Your task to perform on an android device: clear all cookies in the chrome app Image 0: 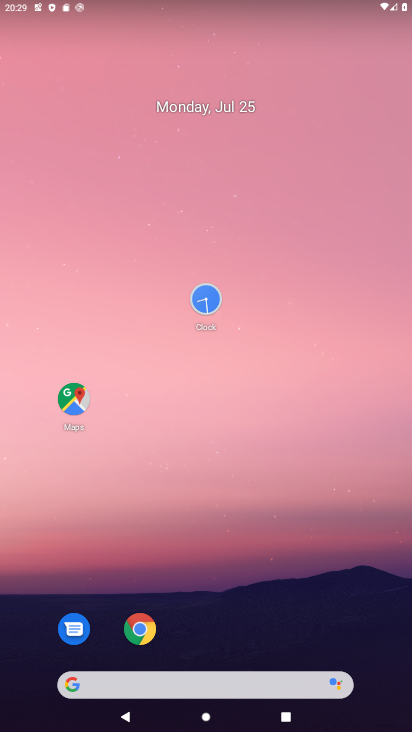
Step 0: click (143, 644)
Your task to perform on an android device: clear all cookies in the chrome app Image 1: 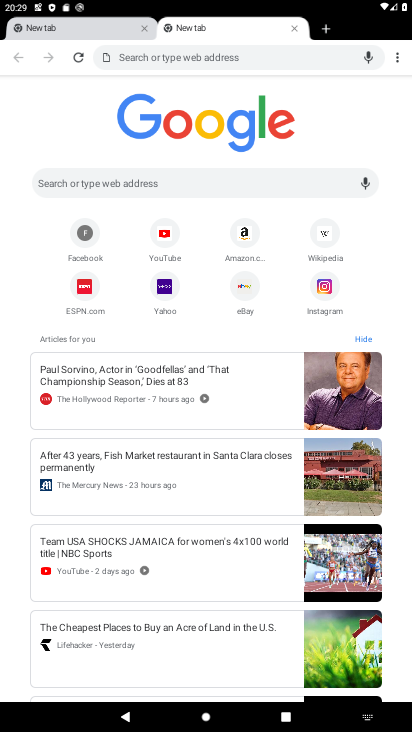
Step 1: click (400, 56)
Your task to perform on an android device: clear all cookies in the chrome app Image 2: 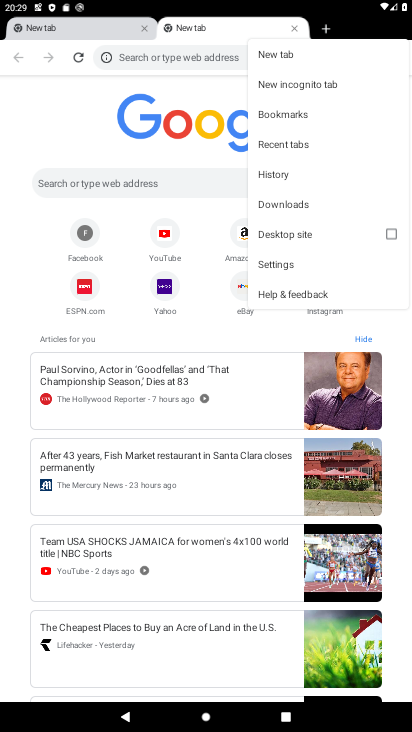
Step 2: click (279, 173)
Your task to perform on an android device: clear all cookies in the chrome app Image 3: 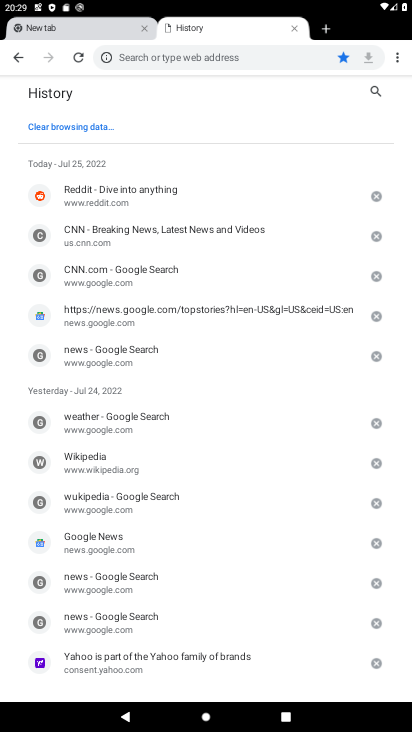
Step 3: click (83, 126)
Your task to perform on an android device: clear all cookies in the chrome app Image 4: 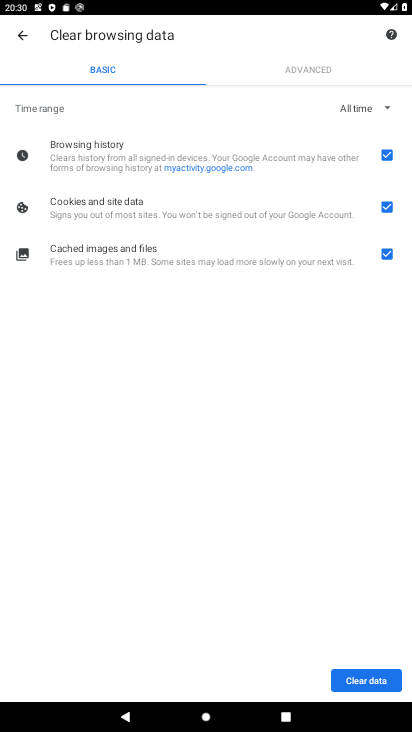
Step 4: click (388, 157)
Your task to perform on an android device: clear all cookies in the chrome app Image 5: 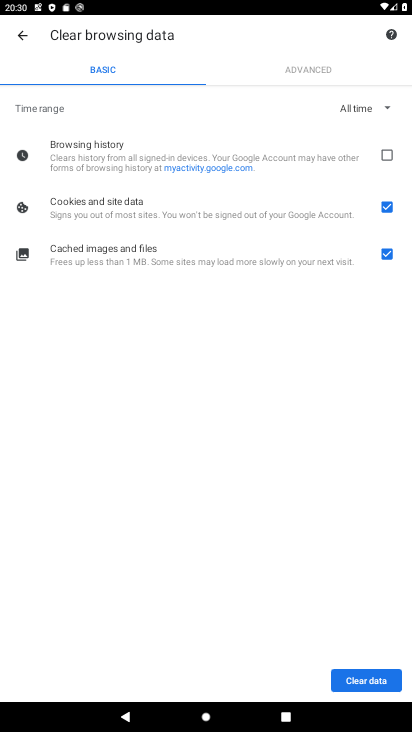
Step 5: click (385, 257)
Your task to perform on an android device: clear all cookies in the chrome app Image 6: 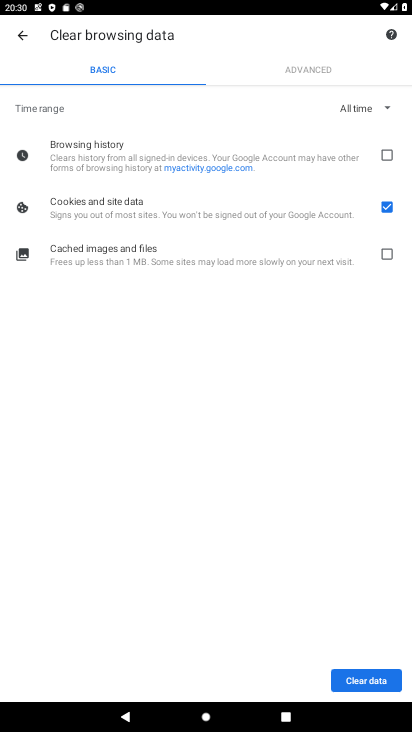
Step 6: click (365, 671)
Your task to perform on an android device: clear all cookies in the chrome app Image 7: 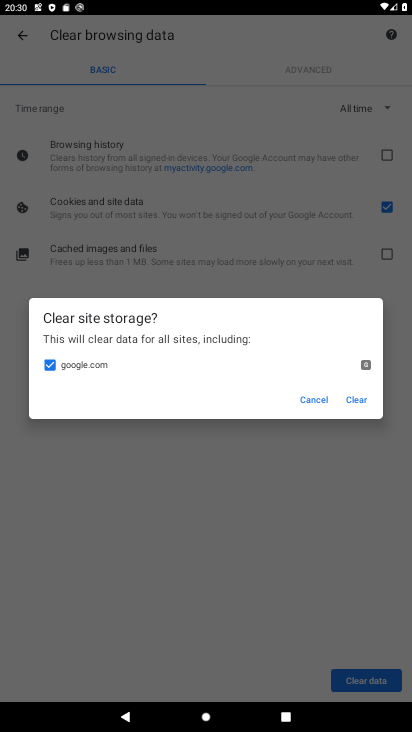
Step 7: click (357, 396)
Your task to perform on an android device: clear all cookies in the chrome app Image 8: 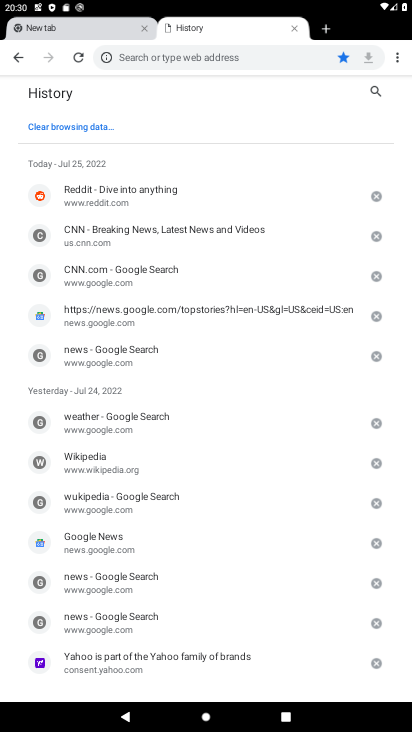
Step 8: task complete